Your task to perform on an android device: See recent photos Image 0: 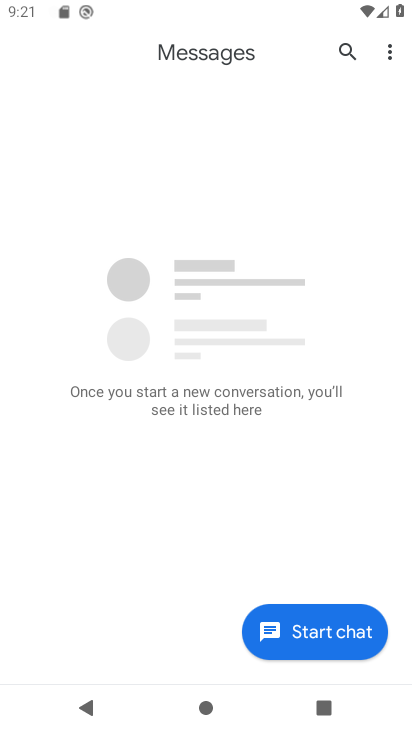
Step 0: press home button
Your task to perform on an android device: See recent photos Image 1: 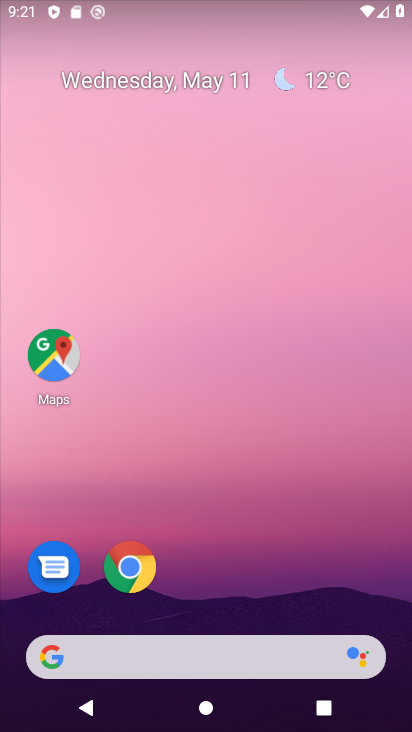
Step 1: drag from (145, 621) to (252, 122)
Your task to perform on an android device: See recent photos Image 2: 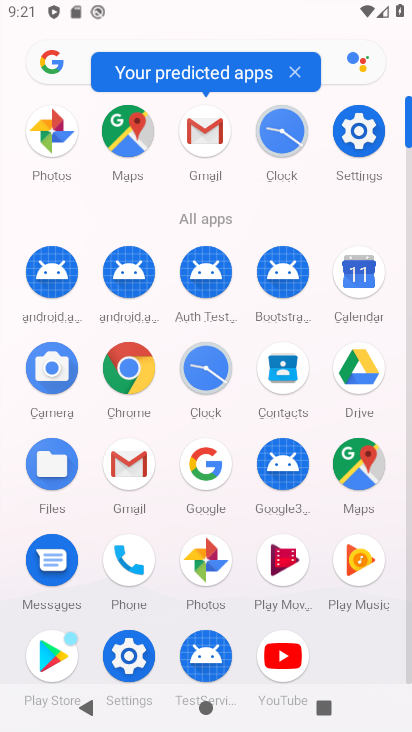
Step 2: drag from (165, 651) to (204, 494)
Your task to perform on an android device: See recent photos Image 3: 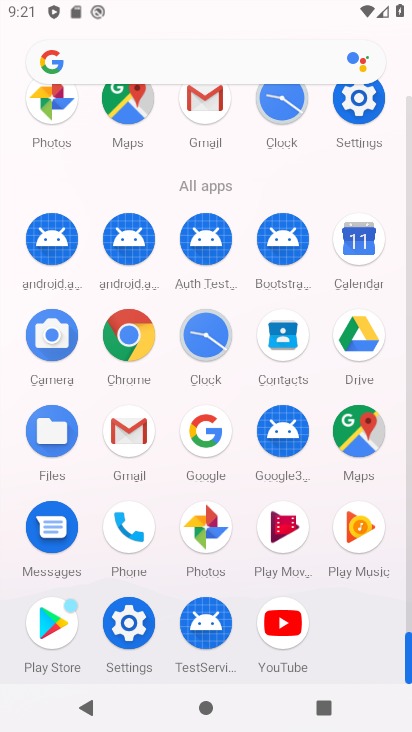
Step 3: click (209, 514)
Your task to perform on an android device: See recent photos Image 4: 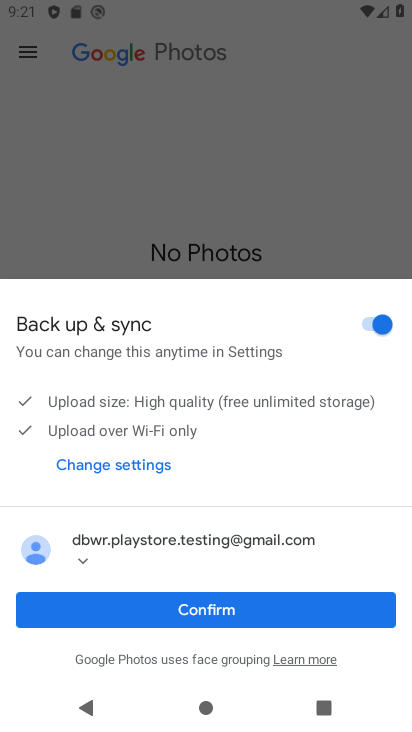
Step 4: click (230, 611)
Your task to perform on an android device: See recent photos Image 5: 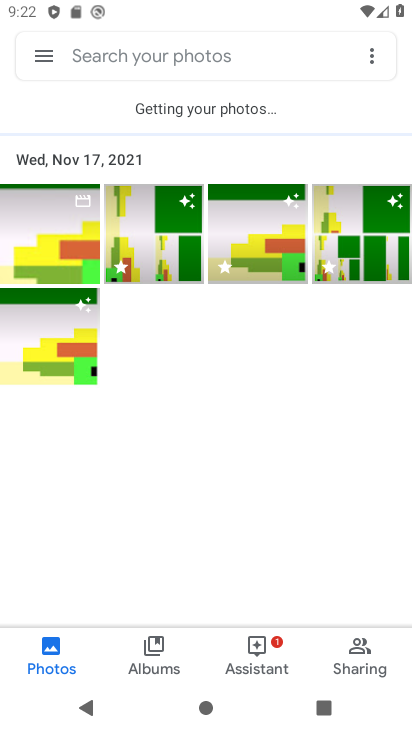
Step 5: task complete